Your task to perform on an android device: What's the weather today? Image 0: 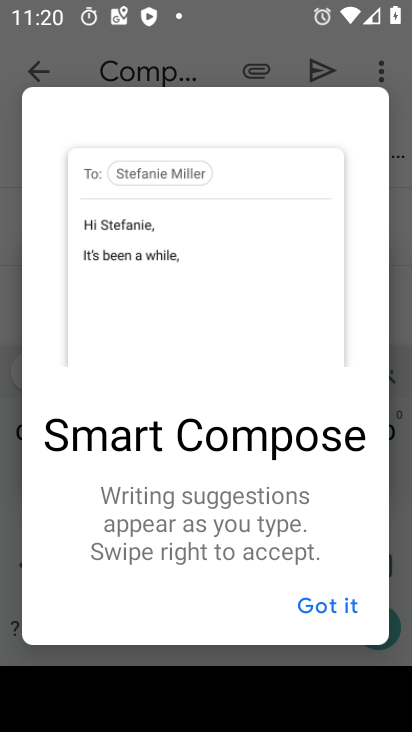
Step 0: press home button
Your task to perform on an android device: What's the weather today? Image 1: 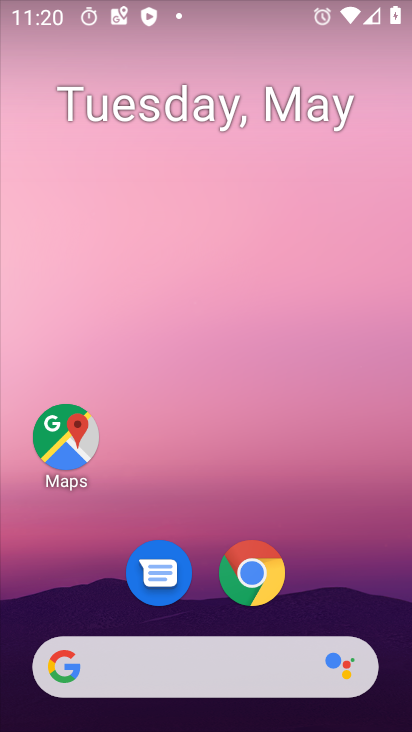
Step 1: drag from (307, 694) to (341, 147)
Your task to perform on an android device: What's the weather today? Image 2: 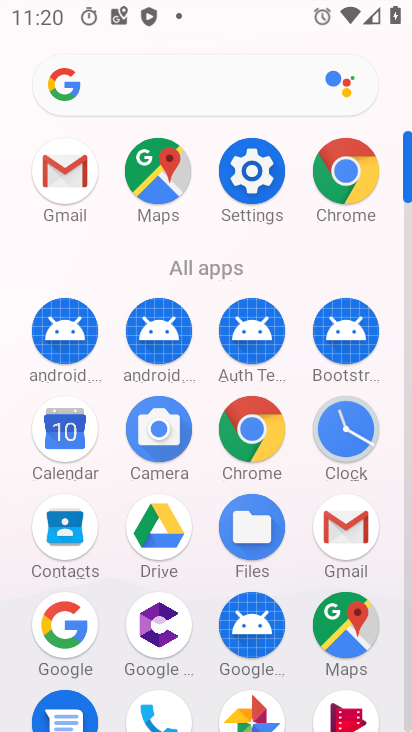
Step 2: click (147, 82)
Your task to perform on an android device: What's the weather today? Image 3: 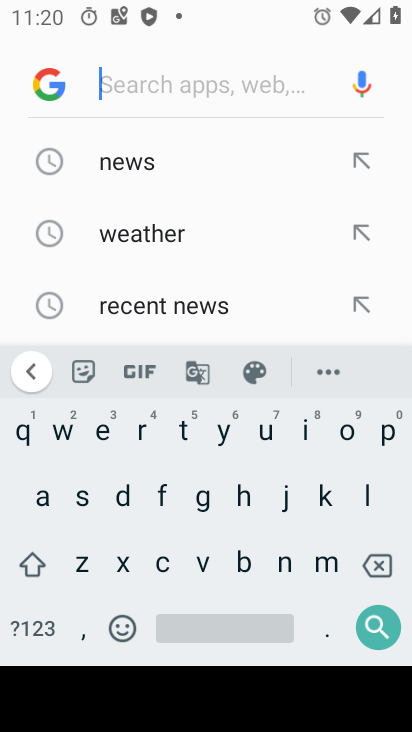
Step 3: click (131, 237)
Your task to perform on an android device: What's the weather today? Image 4: 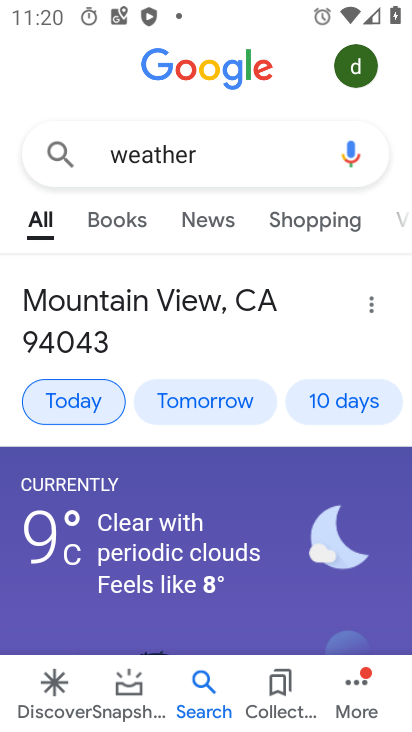
Step 4: task complete